Your task to perform on an android device: set an alarm Image 0: 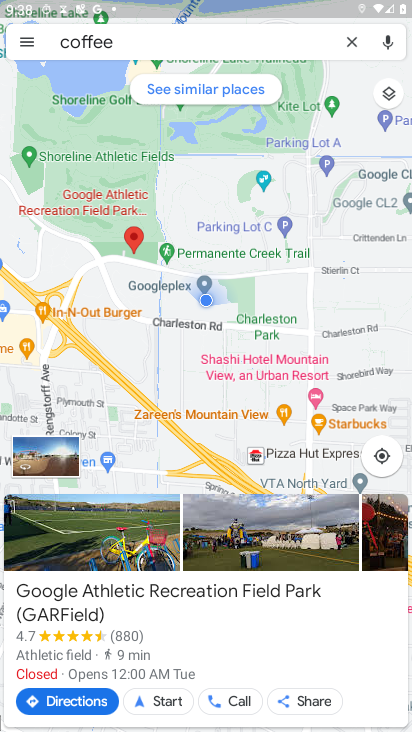
Step 0: press back button
Your task to perform on an android device: set an alarm Image 1: 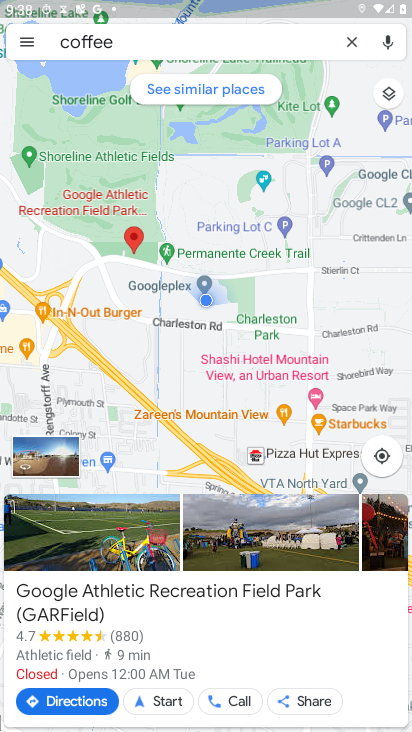
Step 1: press back button
Your task to perform on an android device: set an alarm Image 2: 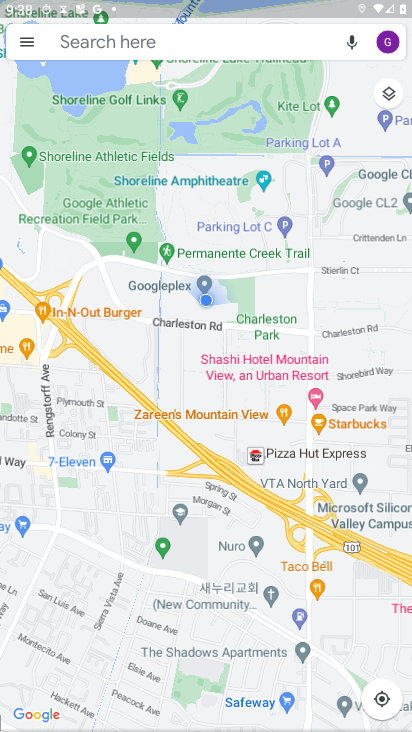
Step 2: press home button
Your task to perform on an android device: set an alarm Image 3: 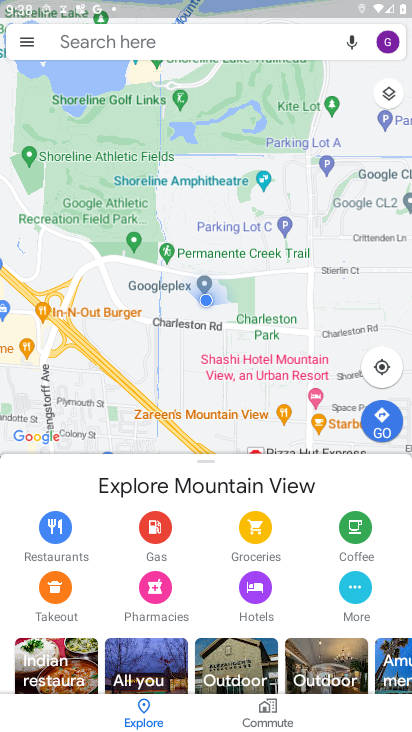
Step 3: press home button
Your task to perform on an android device: set an alarm Image 4: 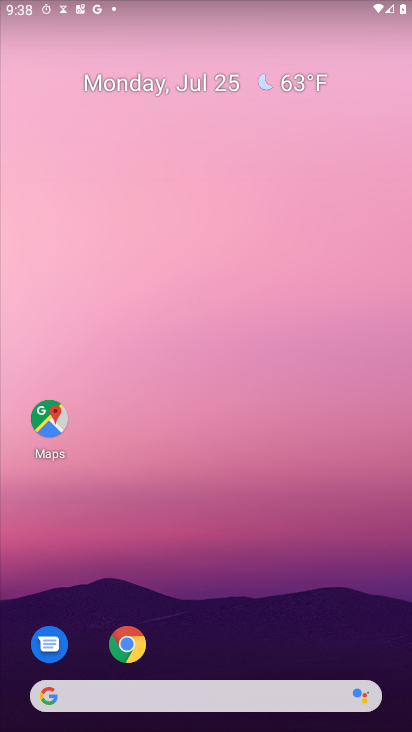
Step 4: drag from (297, 591) to (207, 102)
Your task to perform on an android device: set an alarm Image 5: 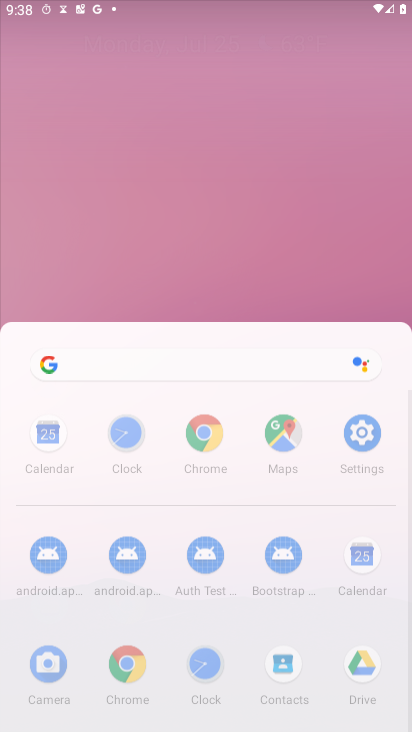
Step 5: drag from (225, 418) to (190, 44)
Your task to perform on an android device: set an alarm Image 6: 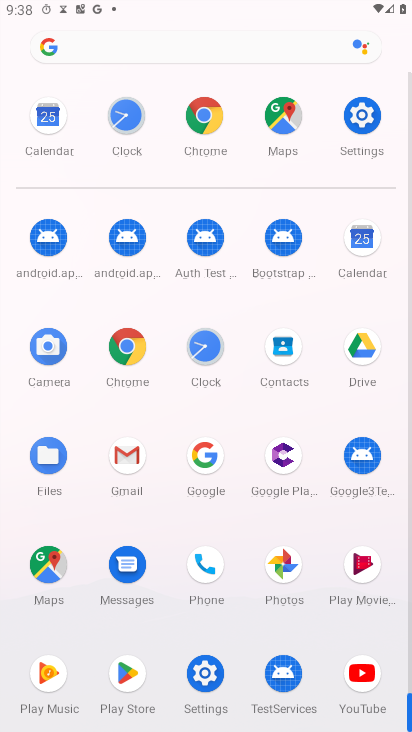
Step 6: click (195, 346)
Your task to perform on an android device: set an alarm Image 7: 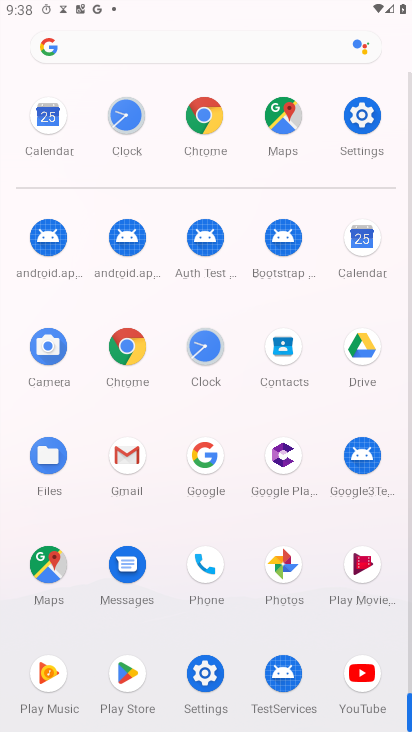
Step 7: click (209, 353)
Your task to perform on an android device: set an alarm Image 8: 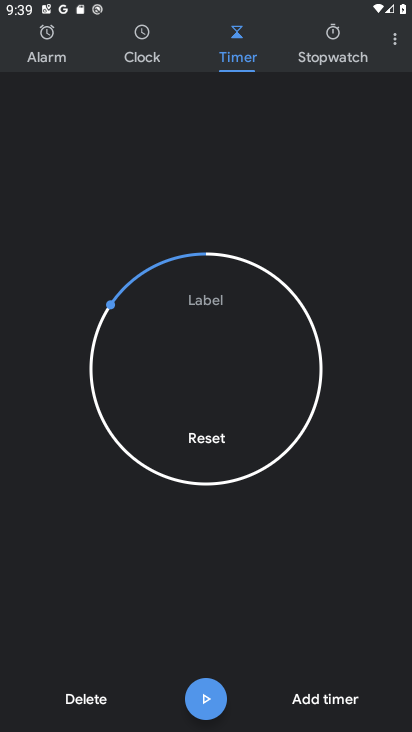
Step 8: click (53, 45)
Your task to perform on an android device: set an alarm Image 9: 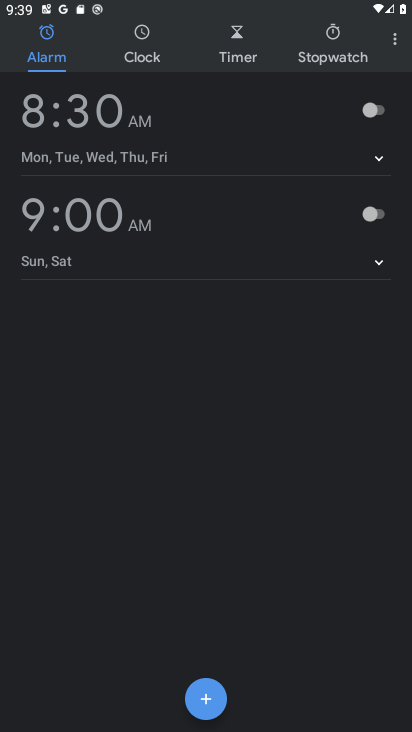
Step 9: click (48, 42)
Your task to perform on an android device: set an alarm Image 10: 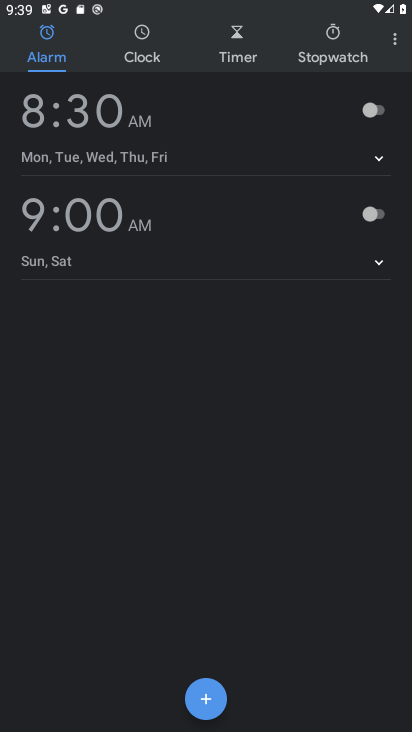
Step 10: click (368, 100)
Your task to perform on an android device: set an alarm Image 11: 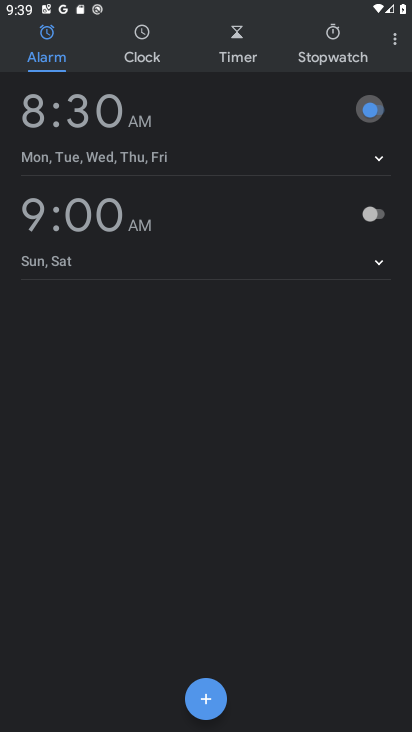
Step 11: click (359, 90)
Your task to perform on an android device: set an alarm Image 12: 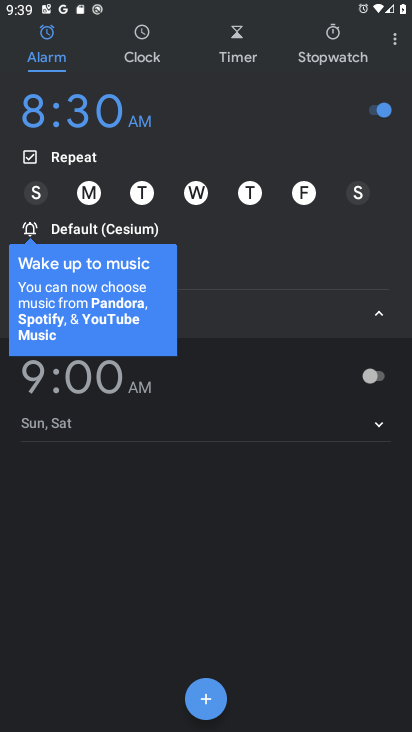
Step 12: task complete